Your task to perform on an android device: Open calendar and show me the third week of next month Image 0: 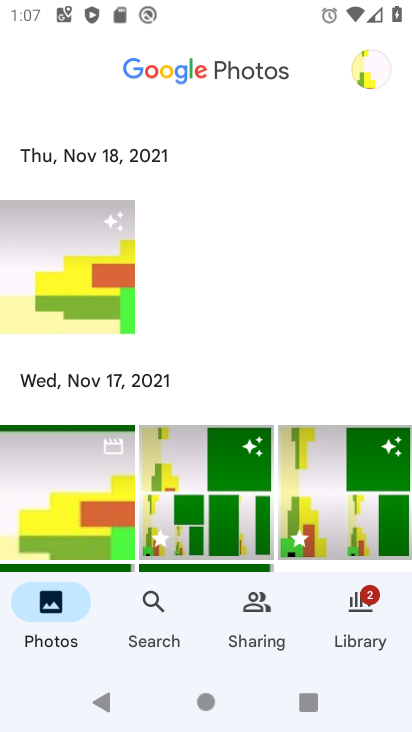
Step 0: press home button
Your task to perform on an android device: Open calendar and show me the third week of next month Image 1: 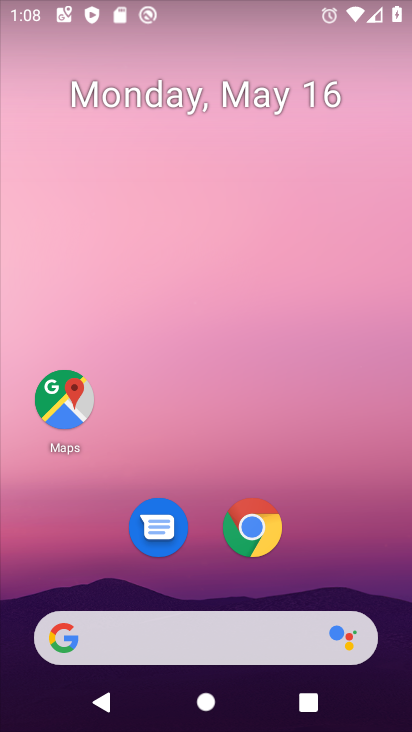
Step 1: drag from (334, 559) to (260, 73)
Your task to perform on an android device: Open calendar and show me the third week of next month Image 2: 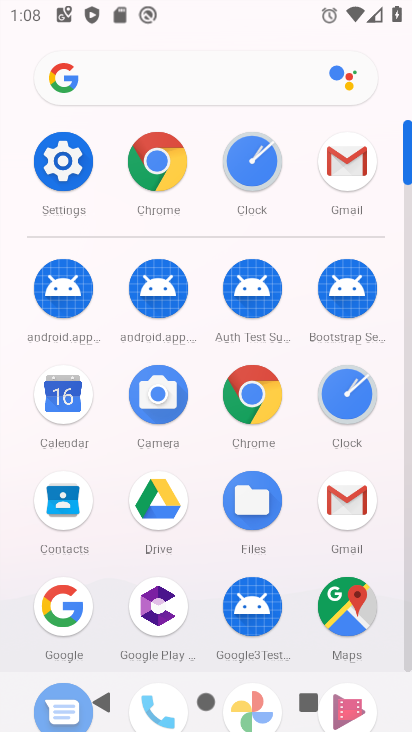
Step 2: click (43, 473)
Your task to perform on an android device: Open calendar and show me the third week of next month Image 3: 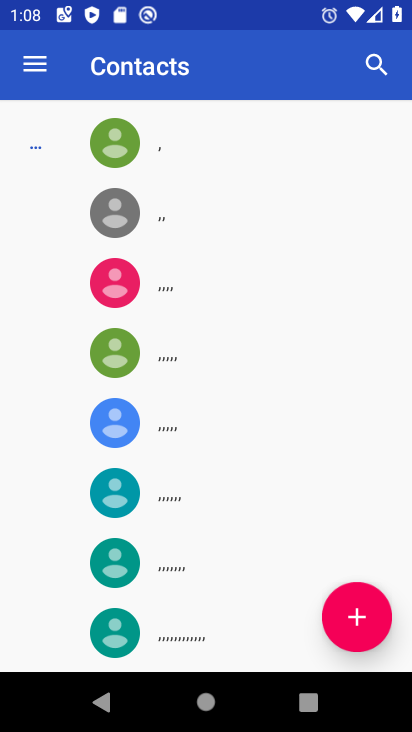
Step 3: press home button
Your task to perform on an android device: Open calendar and show me the third week of next month Image 4: 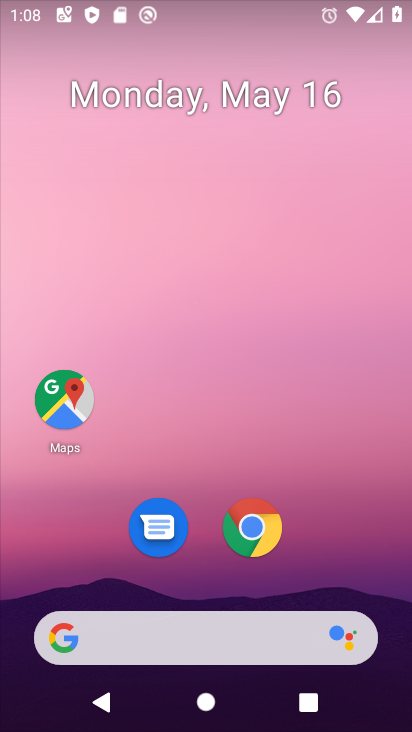
Step 4: drag from (337, 498) to (250, 126)
Your task to perform on an android device: Open calendar and show me the third week of next month Image 5: 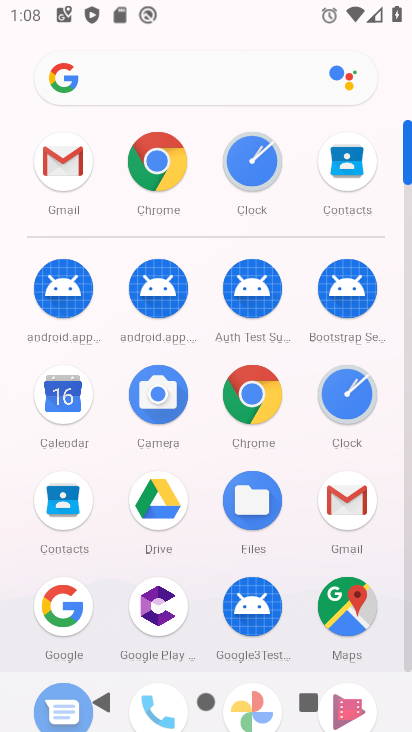
Step 5: click (71, 501)
Your task to perform on an android device: Open calendar and show me the third week of next month Image 6: 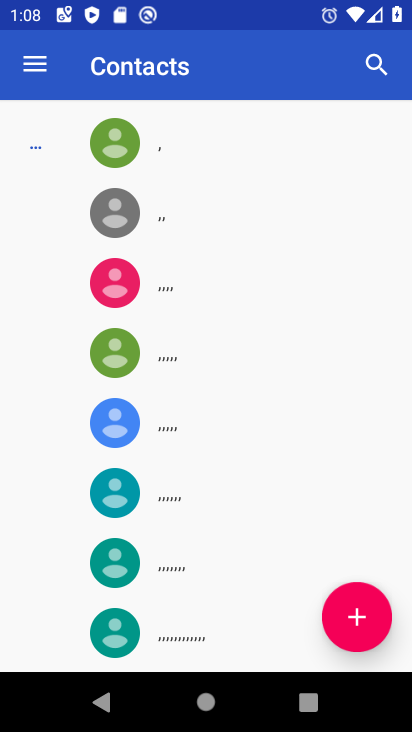
Step 6: press home button
Your task to perform on an android device: Open calendar and show me the third week of next month Image 7: 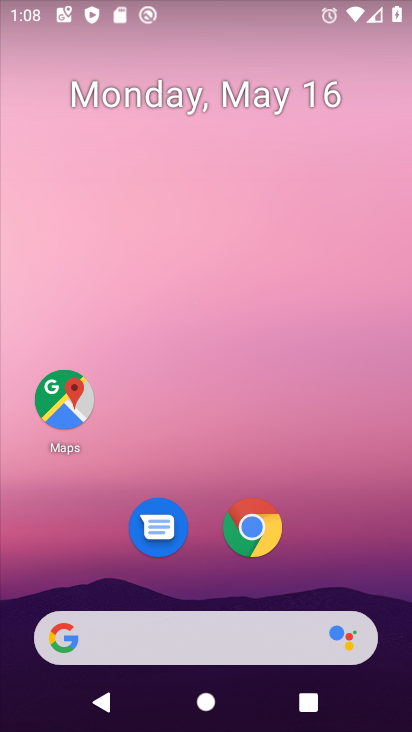
Step 7: drag from (351, 548) to (241, 140)
Your task to perform on an android device: Open calendar and show me the third week of next month Image 8: 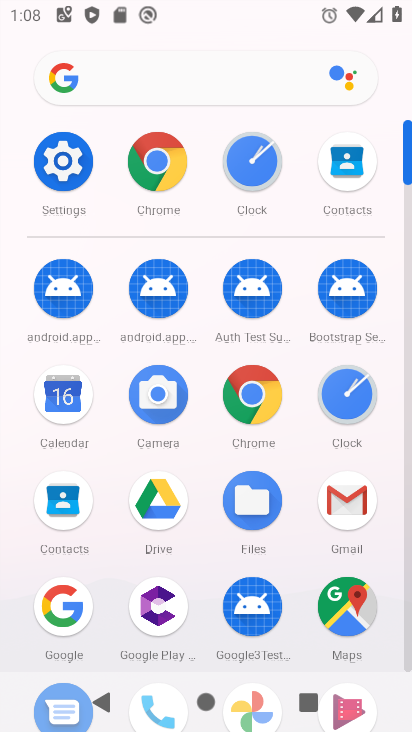
Step 8: click (61, 415)
Your task to perform on an android device: Open calendar and show me the third week of next month Image 9: 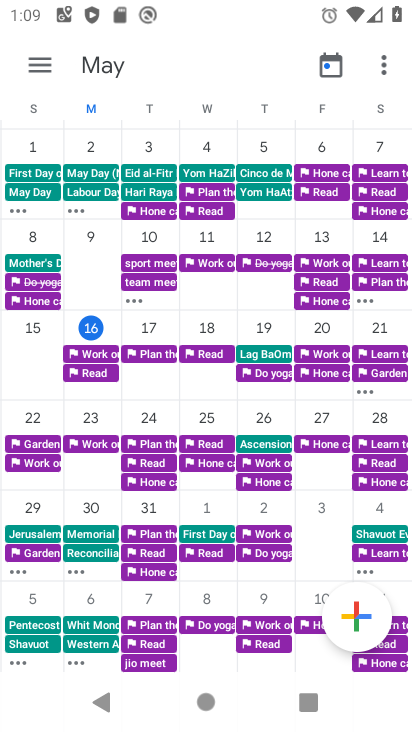
Step 9: click (110, 64)
Your task to perform on an android device: Open calendar and show me the third week of next month Image 10: 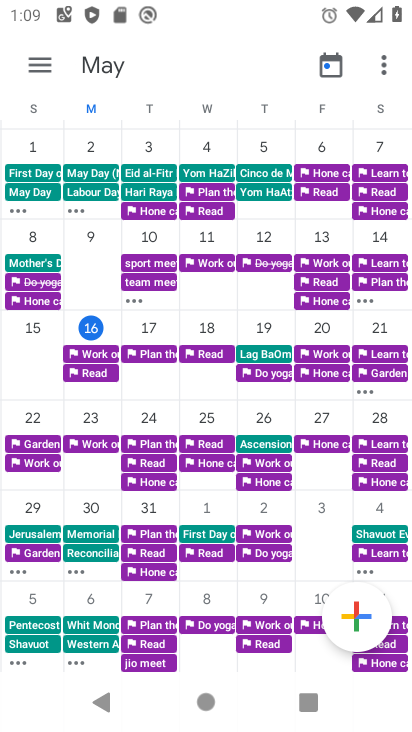
Step 10: click (52, 64)
Your task to perform on an android device: Open calendar and show me the third week of next month Image 11: 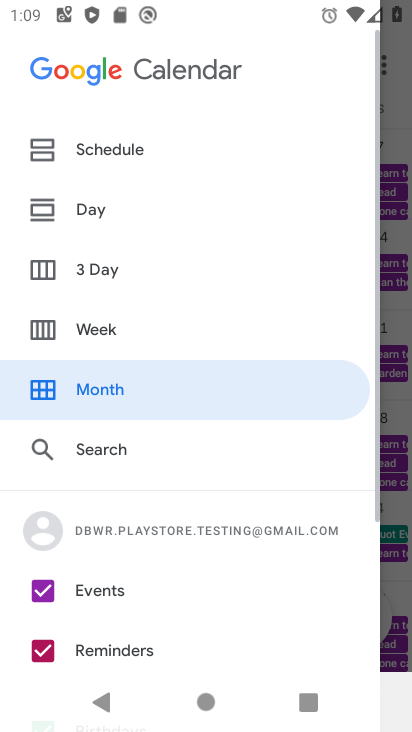
Step 11: click (42, 130)
Your task to perform on an android device: Open calendar and show me the third week of next month Image 12: 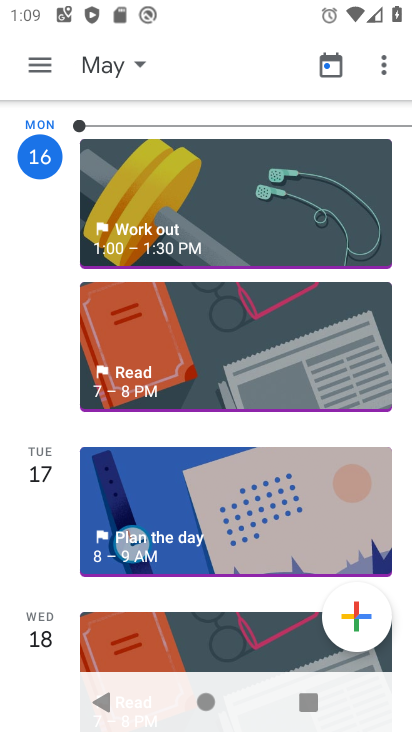
Step 12: click (118, 72)
Your task to perform on an android device: Open calendar and show me the third week of next month Image 13: 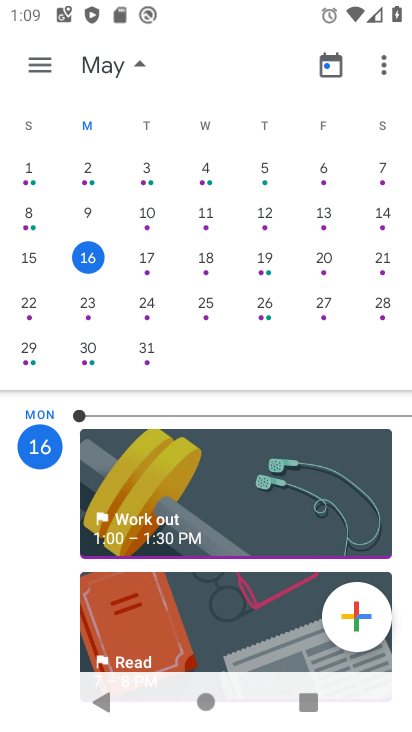
Step 13: drag from (356, 285) to (3, 227)
Your task to perform on an android device: Open calendar and show me the third week of next month Image 14: 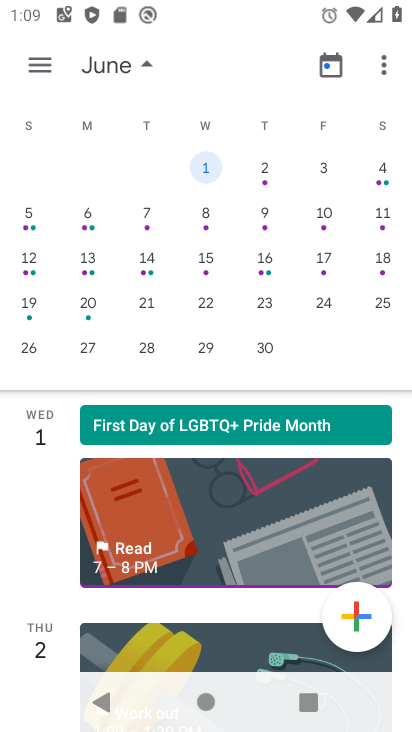
Step 14: click (42, 57)
Your task to perform on an android device: Open calendar and show me the third week of next month Image 15: 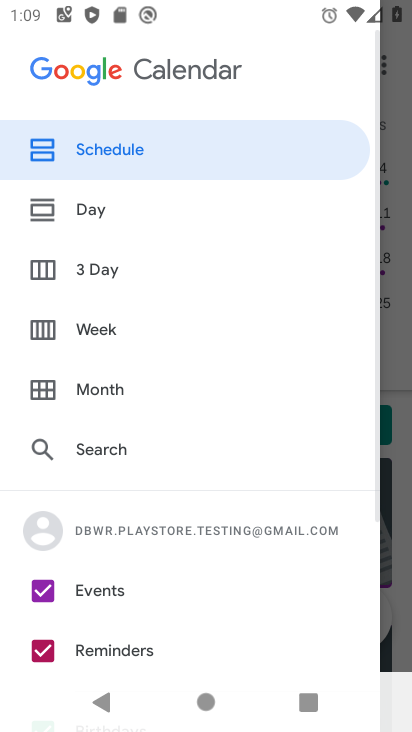
Step 15: click (85, 389)
Your task to perform on an android device: Open calendar and show me the third week of next month Image 16: 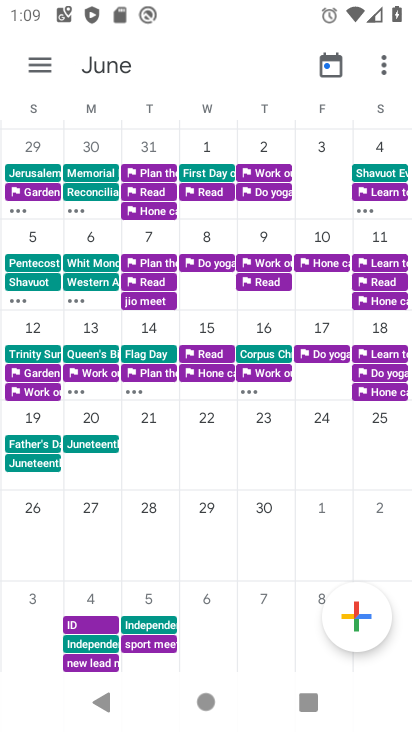
Step 16: task complete